Your task to perform on an android device: turn on showing notifications on the lock screen Image 0: 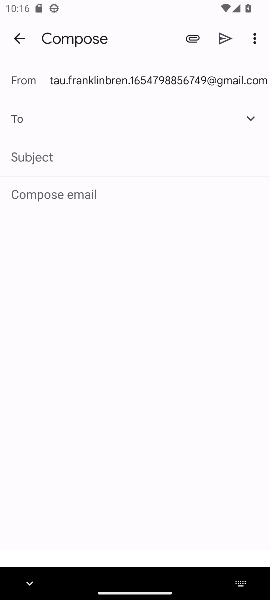
Step 0: press home button
Your task to perform on an android device: turn on showing notifications on the lock screen Image 1: 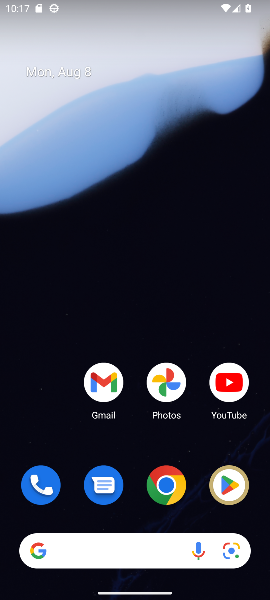
Step 1: drag from (200, 501) to (214, 23)
Your task to perform on an android device: turn on showing notifications on the lock screen Image 2: 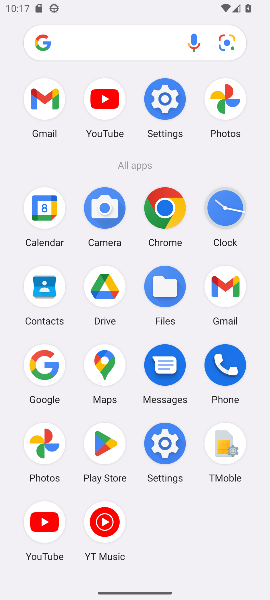
Step 2: click (173, 442)
Your task to perform on an android device: turn on showing notifications on the lock screen Image 3: 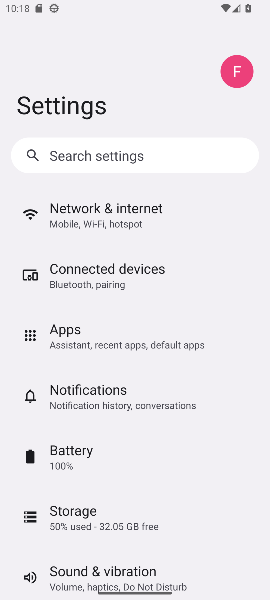
Step 3: drag from (144, 537) to (168, 120)
Your task to perform on an android device: turn on showing notifications on the lock screen Image 4: 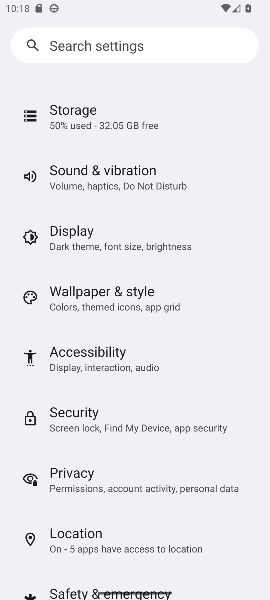
Step 4: drag from (84, 509) to (100, 599)
Your task to perform on an android device: turn on showing notifications on the lock screen Image 5: 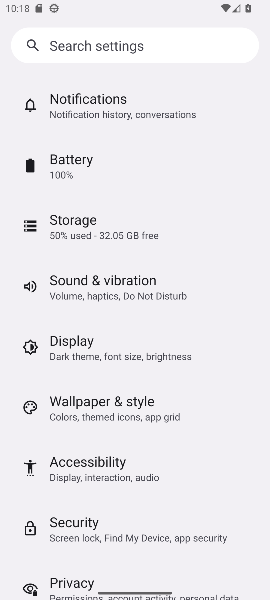
Step 5: click (81, 96)
Your task to perform on an android device: turn on showing notifications on the lock screen Image 6: 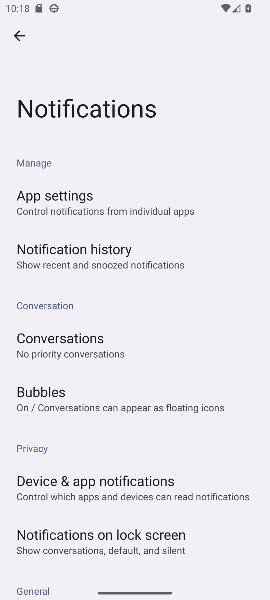
Step 6: drag from (120, 494) to (144, 305)
Your task to perform on an android device: turn on showing notifications on the lock screen Image 7: 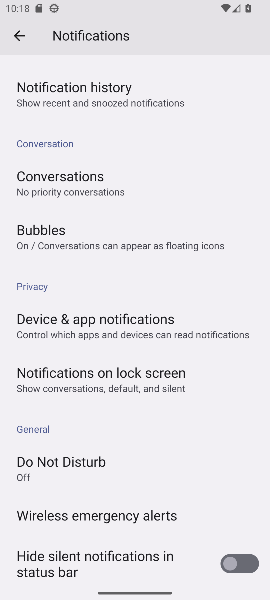
Step 7: click (94, 376)
Your task to perform on an android device: turn on showing notifications on the lock screen Image 8: 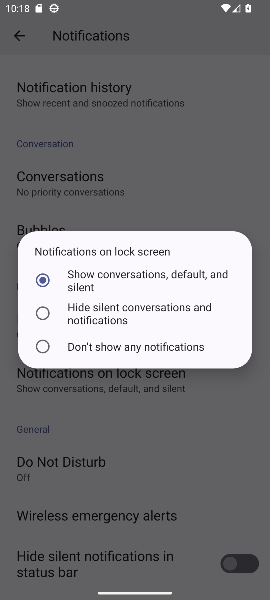
Step 8: click (87, 311)
Your task to perform on an android device: turn on showing notifications on the lock screen Image 9: 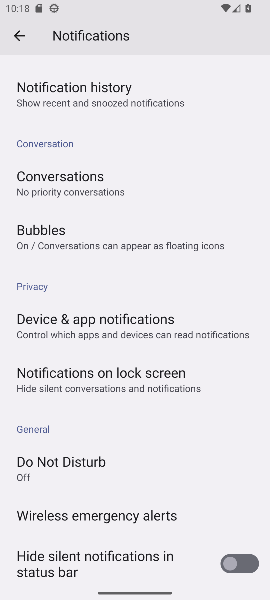
Step 9: task complete